Your task to perform on an android device: check google app version Image 0: 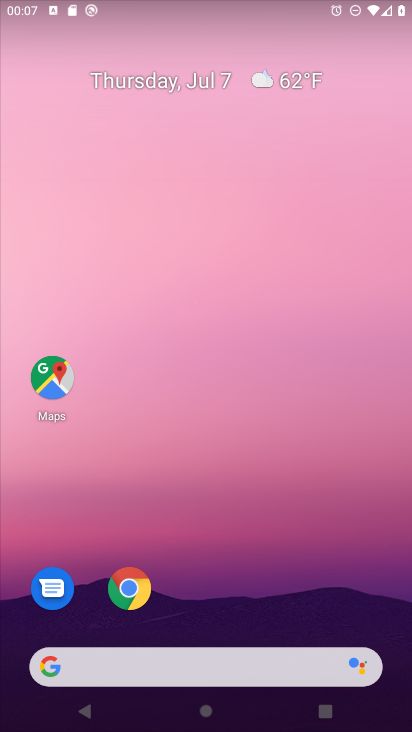
Step 0: click (129, 584)
Your task to perform on an android device: check google app version Image 1: 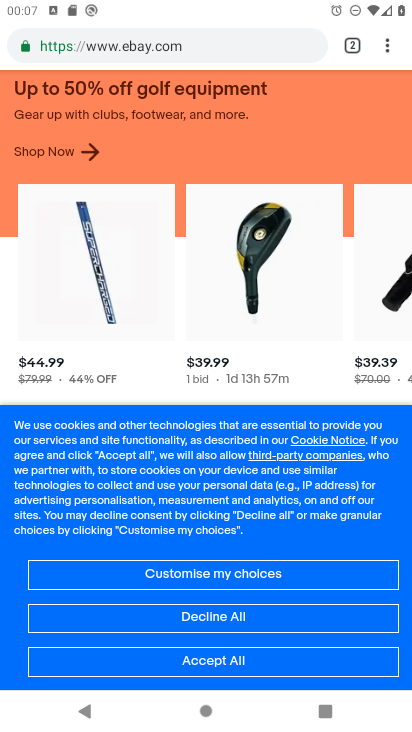
Step 1: click (385, 46)
Your task to perform on an android device: check google app version Image 2: 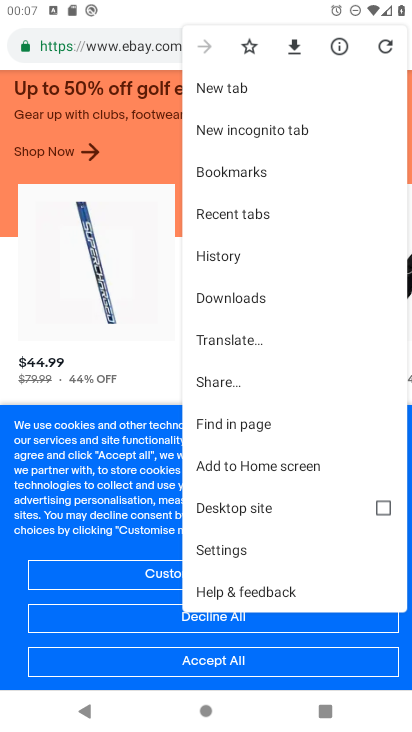
Step 2: click (232, 550)
Your task to perform on an android device: check google app version Image 3: 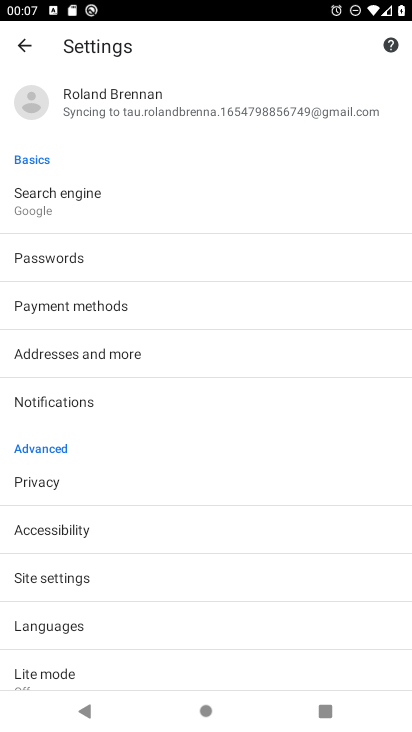
Step 3: drag from (178, 632) to (205, 206)
Your task to perform on an android device: check google app version Image 4: 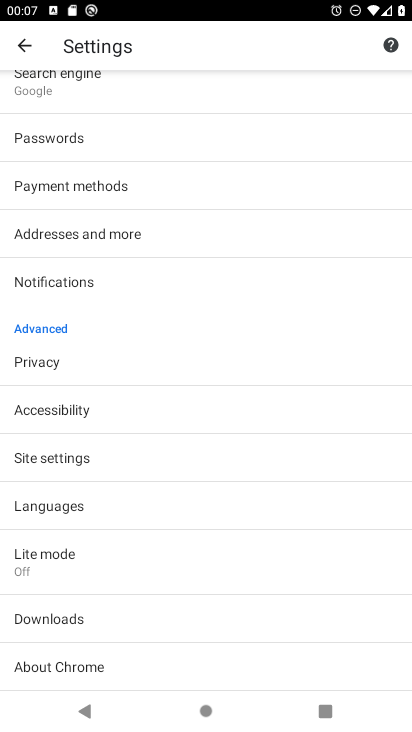
Step 4: click (78, 661)
Your task to perform on an android device: check google app version Image 5: 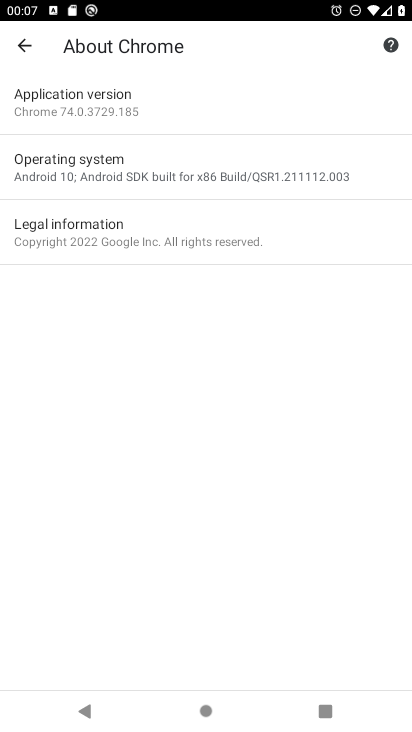
Step 5: click (84, 100)
Your task to perform on an android device: check google app version Image 6: 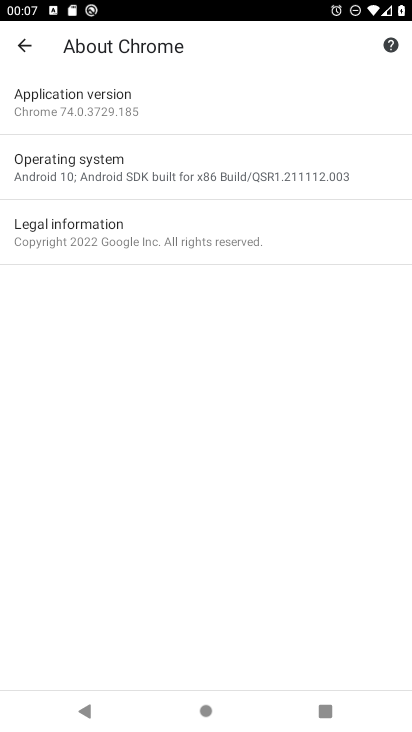
Step 6: task complete